Your task to perform on an android device: open app "Firefox Browser" Image 0: 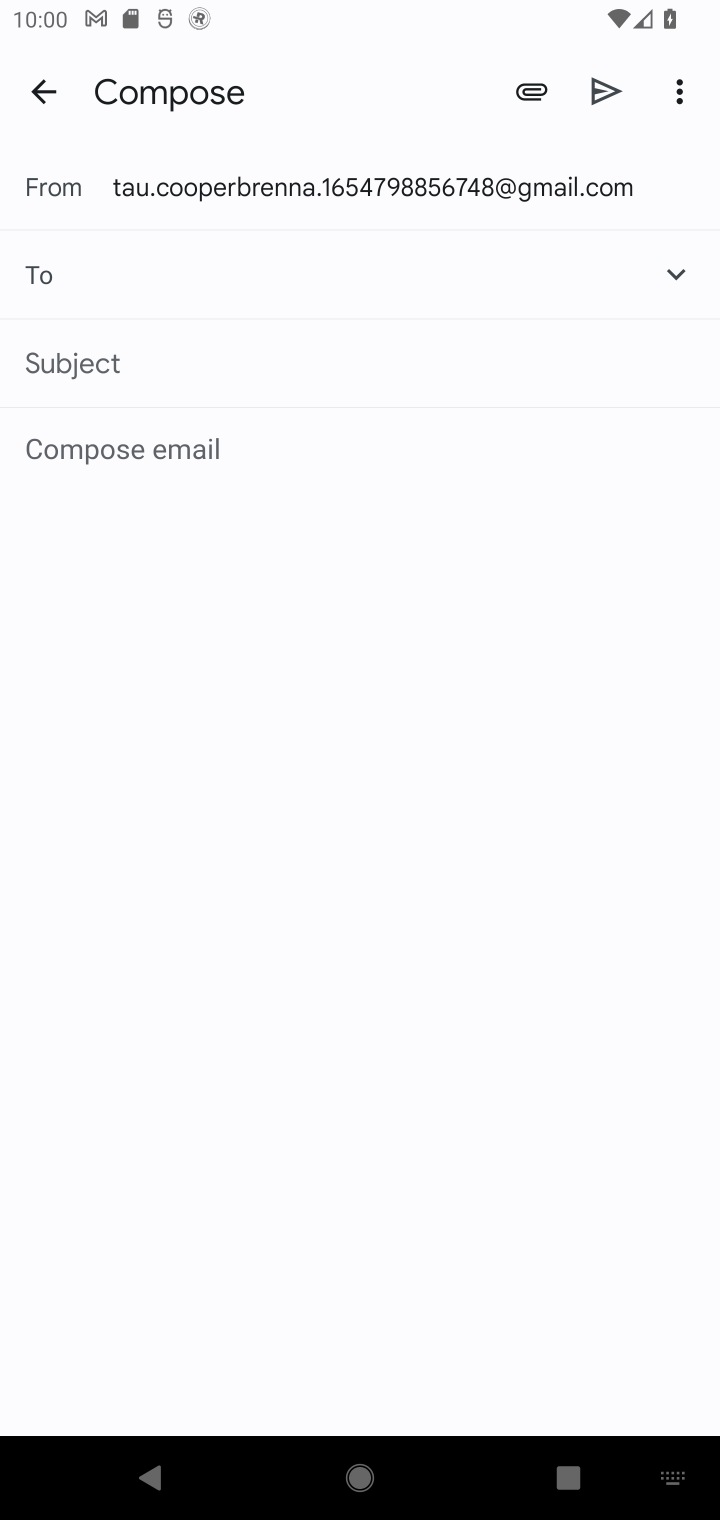
Step 0: press home button
Your task to perform on an android device: open app "Firefox Browser" Image 1: 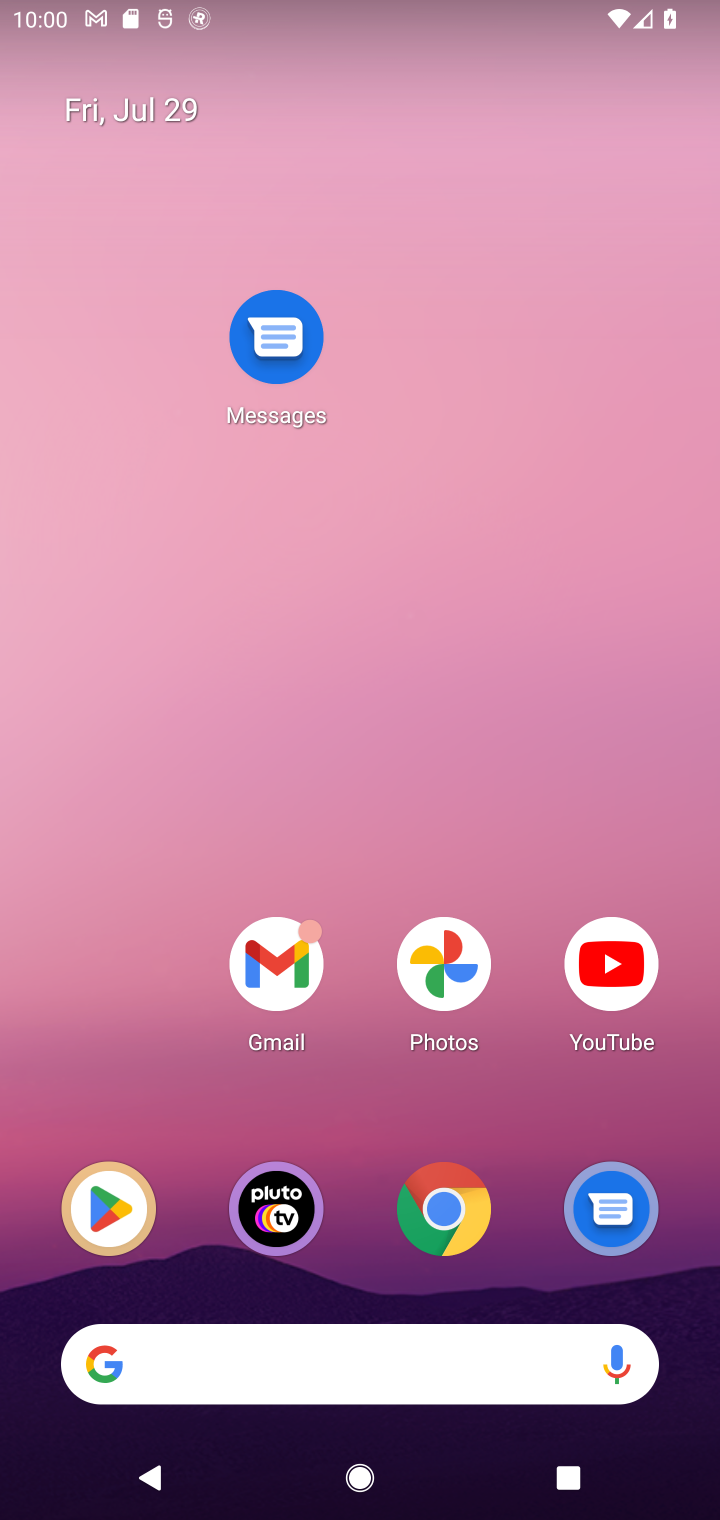
Step 1: drag from (264, 1379) to (292, 478)
Your task to perform on an android device: open app "Firefox Browser" Image 2: 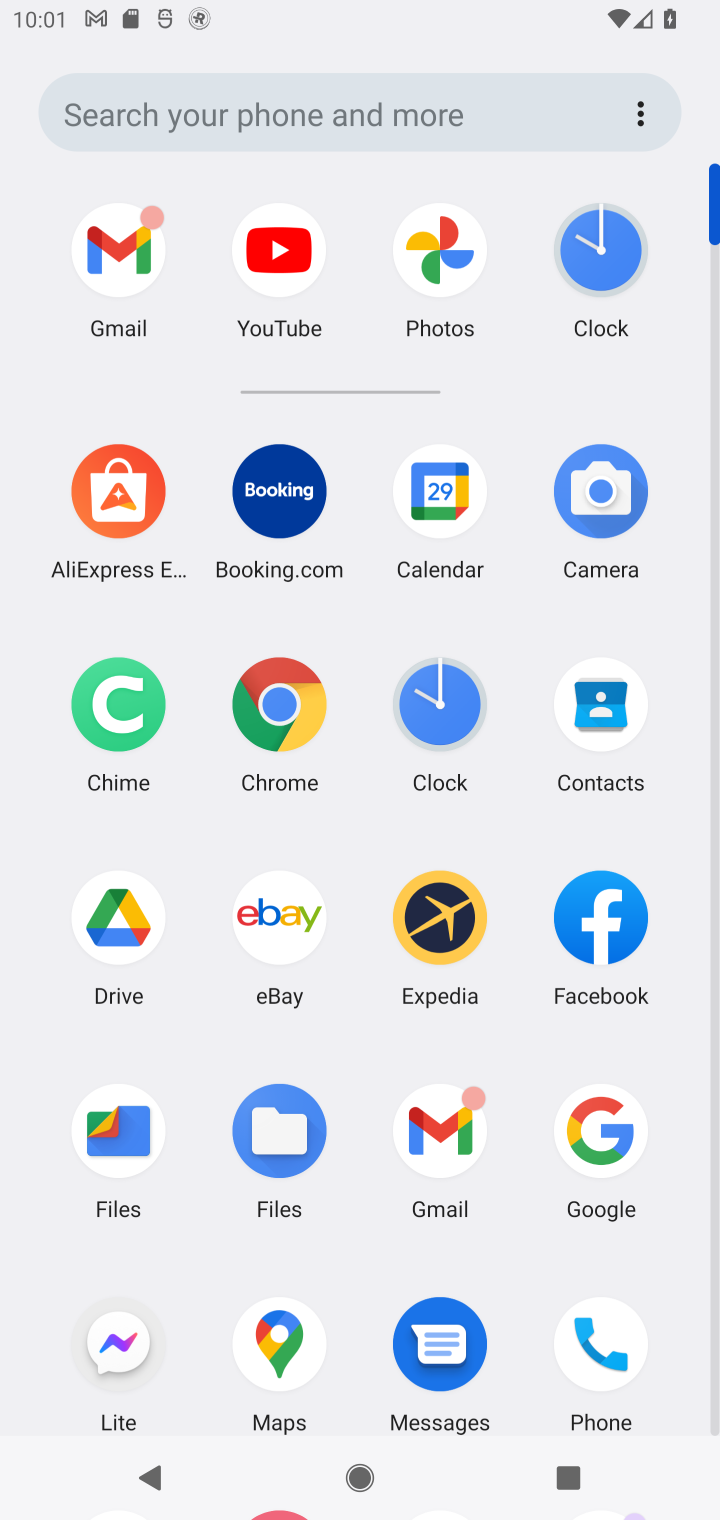
Step 2: drag from (357, 1159) to (330, 632)
Your task to perform on an android device: open app "Firefox Browser" Image 3: 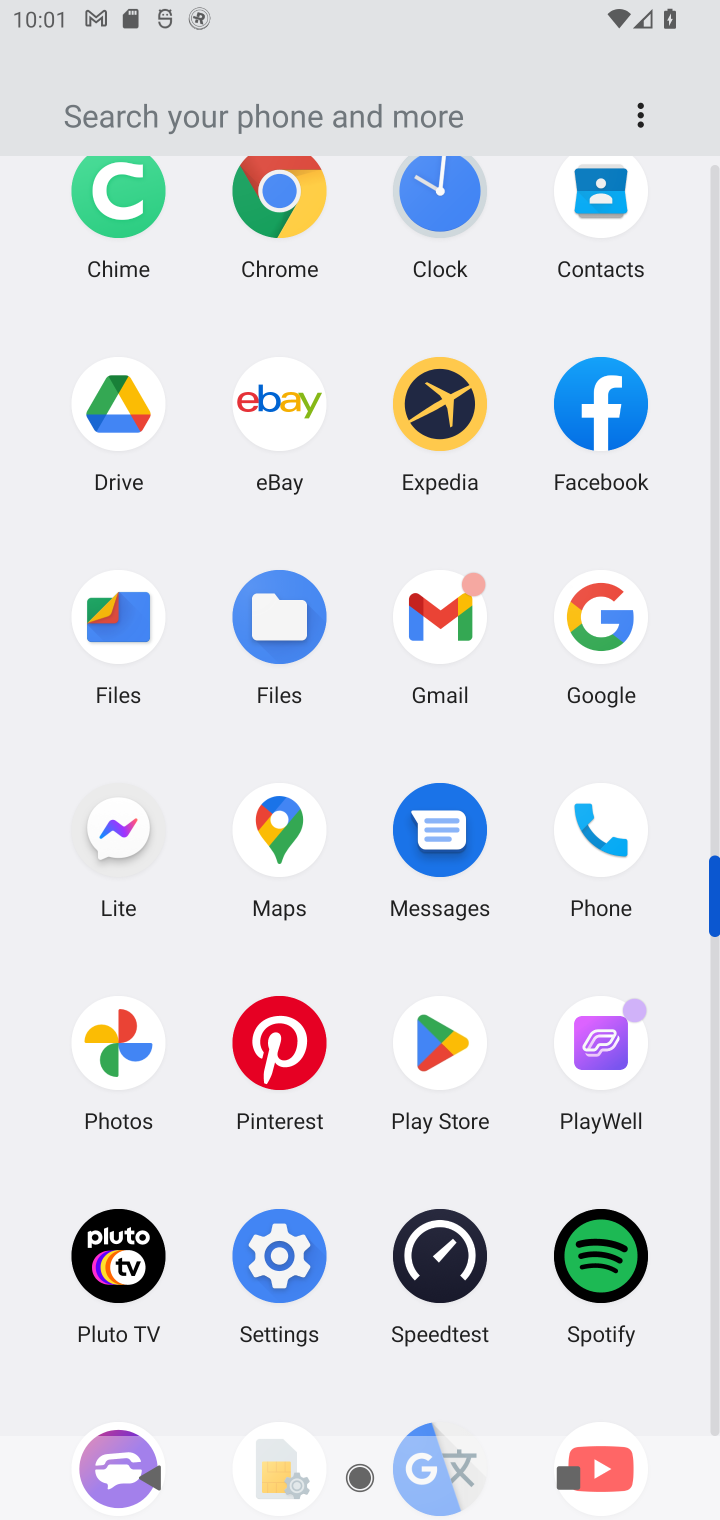
Step 3: click (445, 1044)
Your task to perform on an android device: open app "Firefox Browser" Image 4: 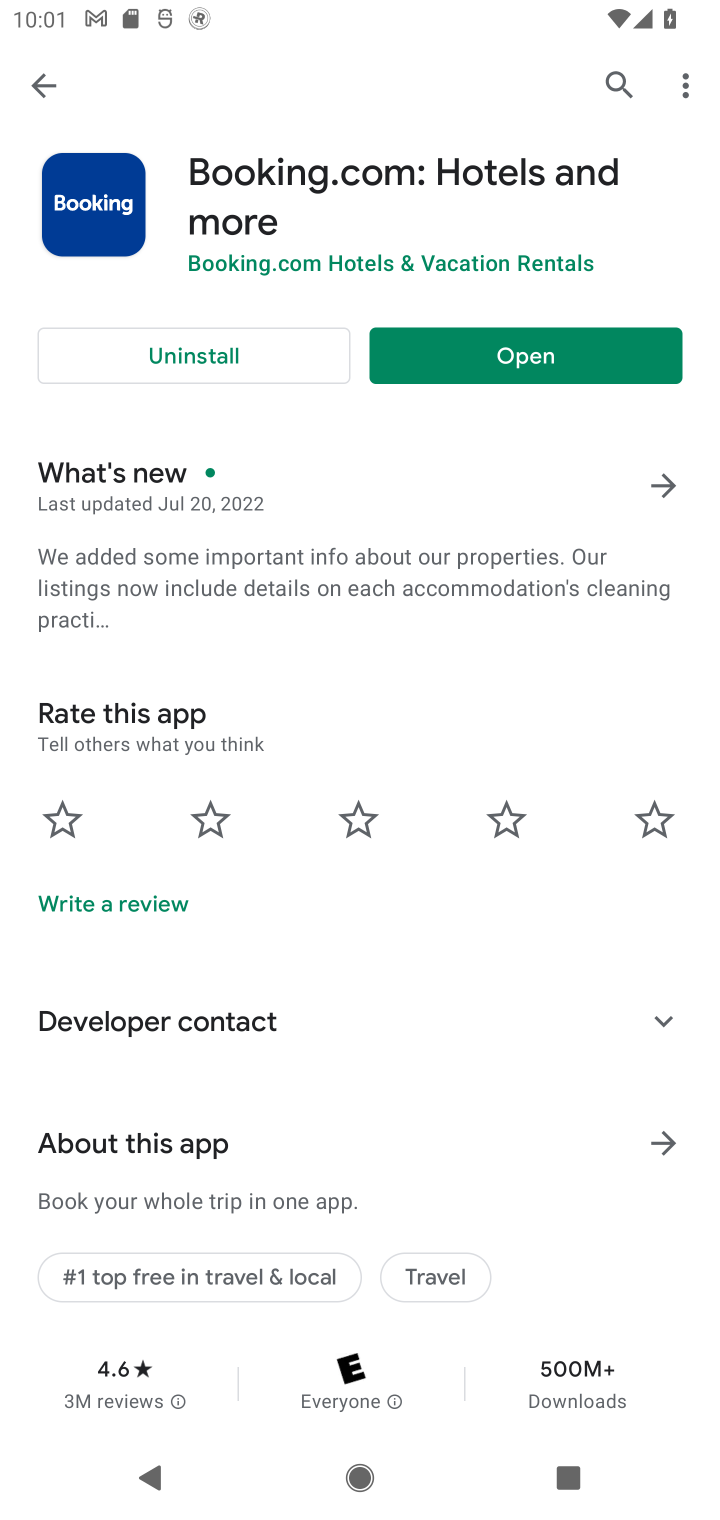
Step 4: click (615, 75)
Your task to perform on an android device: open app "Firefox Browser" Image 5: 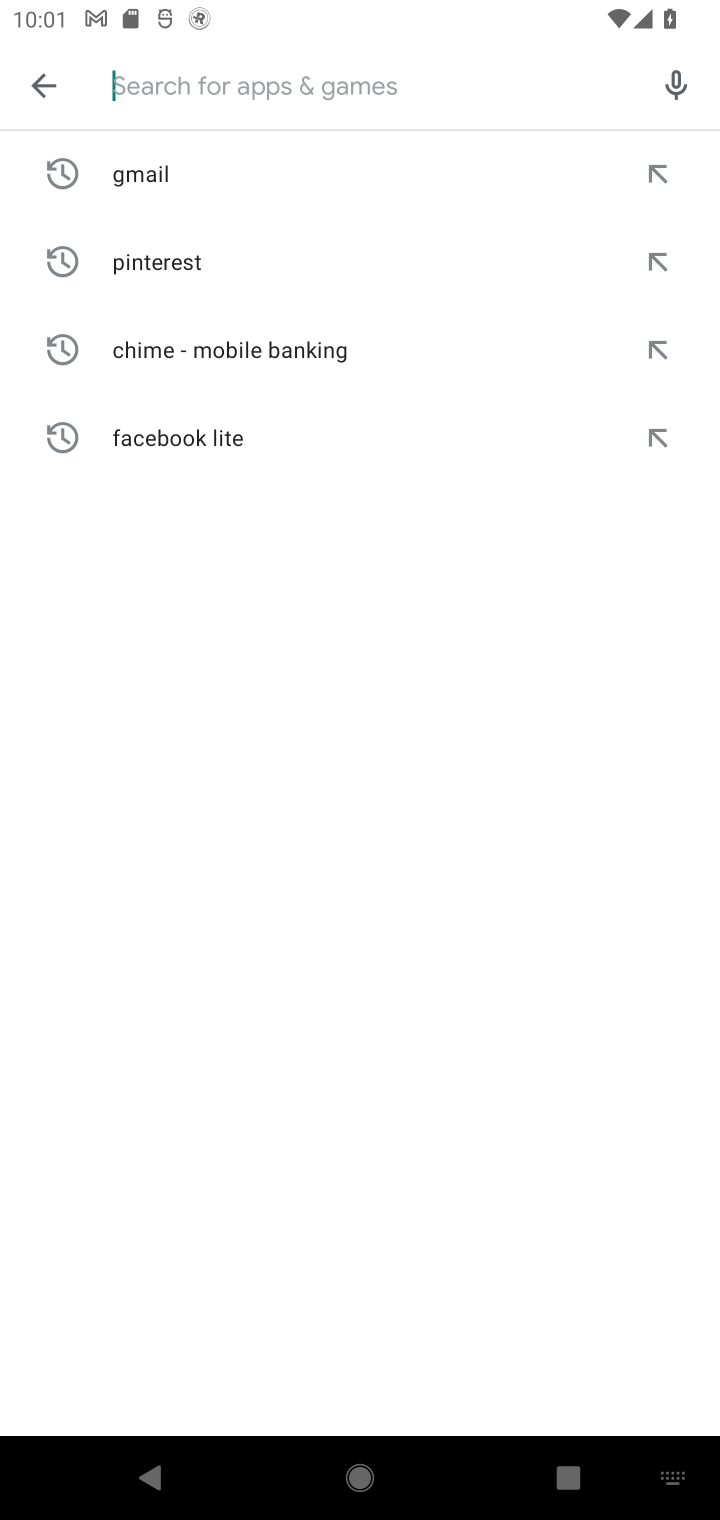
Step 5: type "Firefox Browser"
Your task to perform on an android device: open app "Firefox Browser" Image 6: 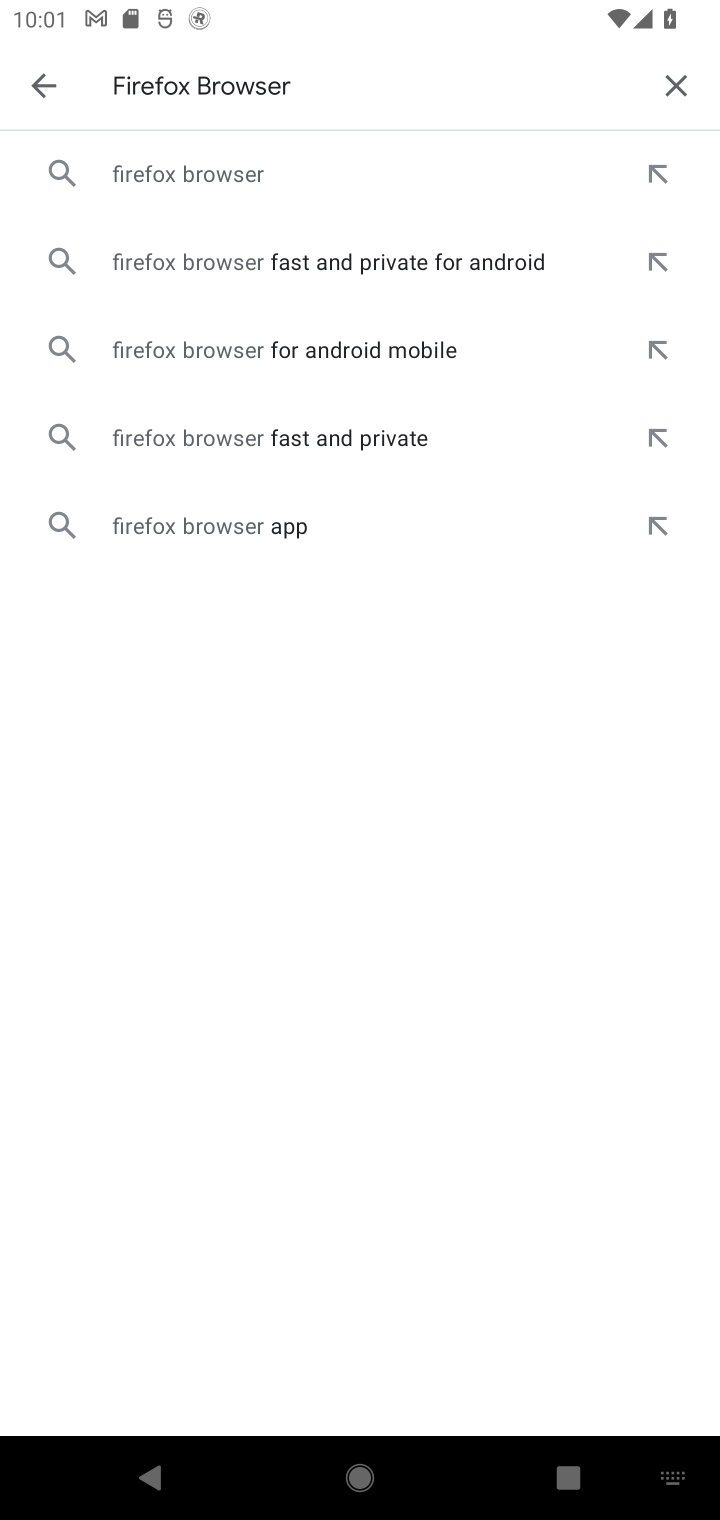
Step 6: click (236, 159)
Your task to perform on an android device: open app "Firefox Browser" Image 7: 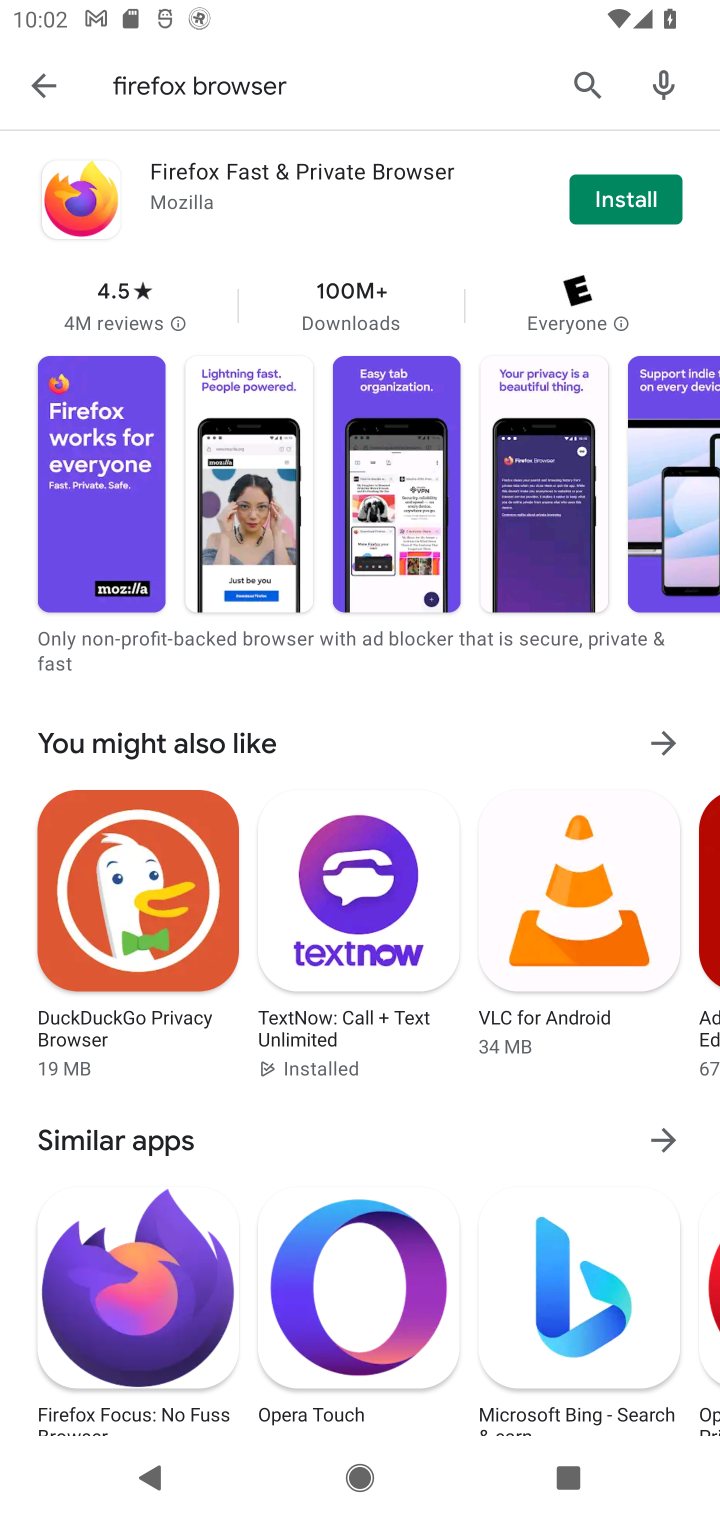
Step 7: task complete